Your task to perform on an android device: Show me recent news Image 0: 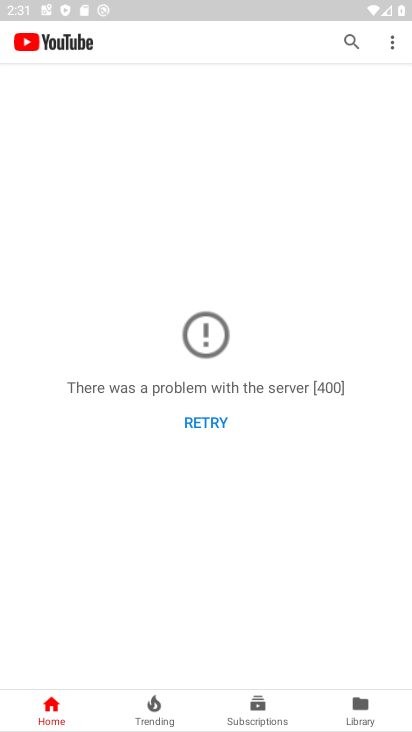
Step 0: drag from (227, 668) to (269, 379)
Your task to perform on an android device: Show me recent news Image 1: 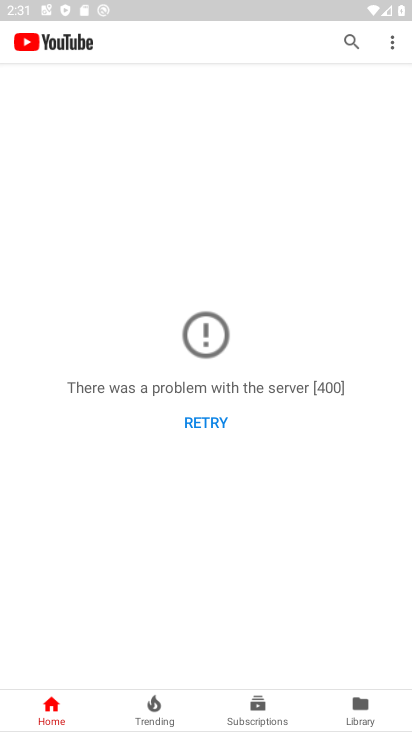
Step 1: press home button
Your task to perform on an android device: Show me recent news Image 2: 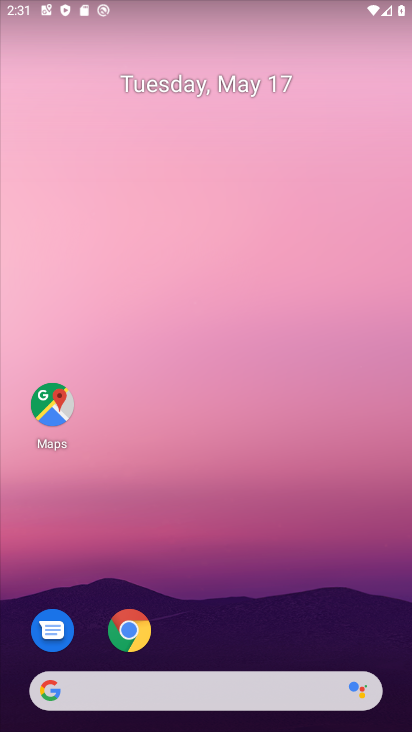
Step 2: drag from (156, 526) to (194, 268)
Your task to perform on an android device: Show me recent news Image 3: 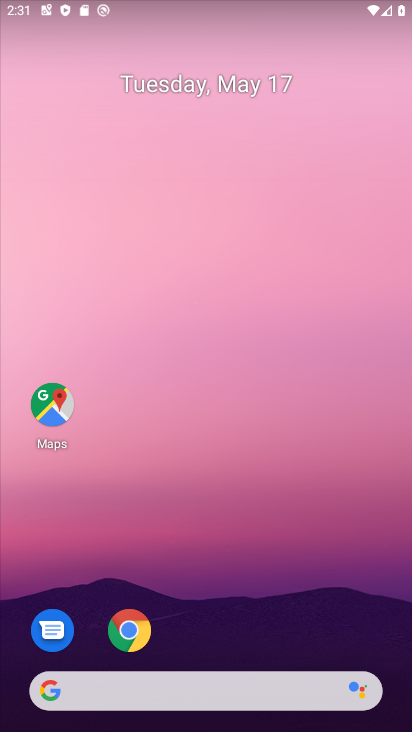
Step 3: drag from (230, 665) to (270, 180)
Your task to perform on an android device: Show me recent news Image 4: 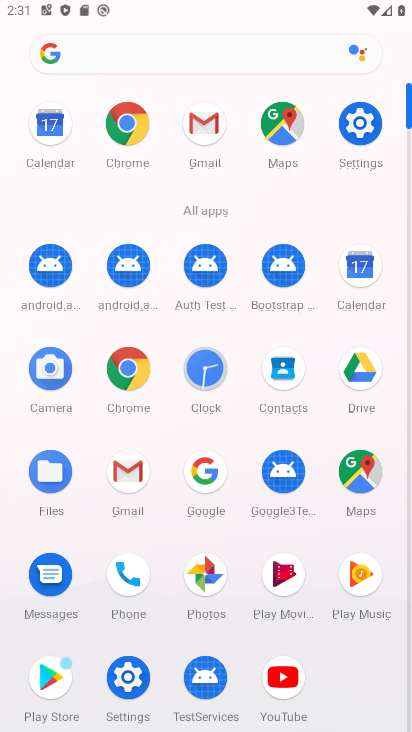
Step 4: click (205, 469)
Your task to perform on an android device: Show me recent news Image 5: 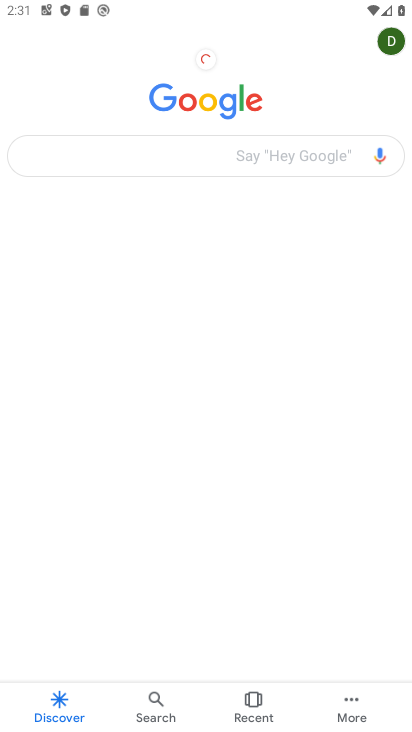
Step 5: click (203, 162)
Your task to perform on an android device: Show me recent news Image 6: 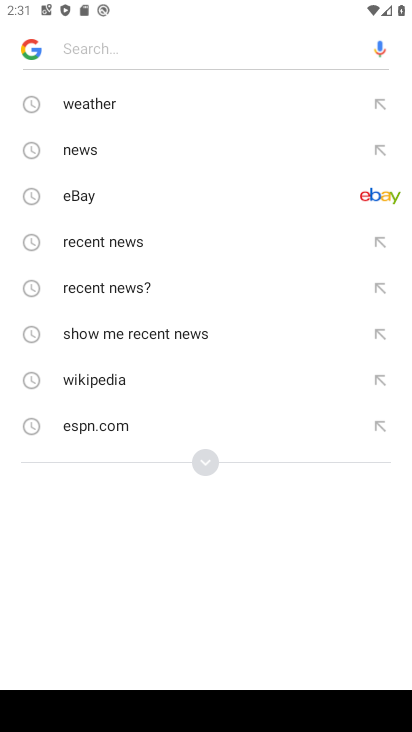
Step 6: click (133, 237)
Your task to perform on an android device: Show me recent news Image 7: 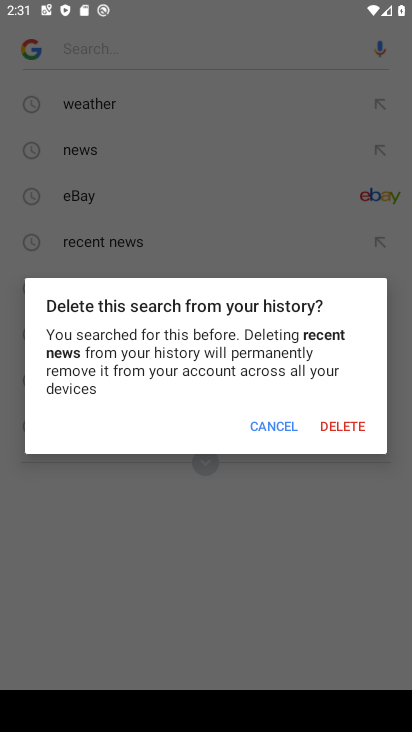
Step 7: click (267, 420)
Your task to perform on an android device: Show me recent news Image 8: 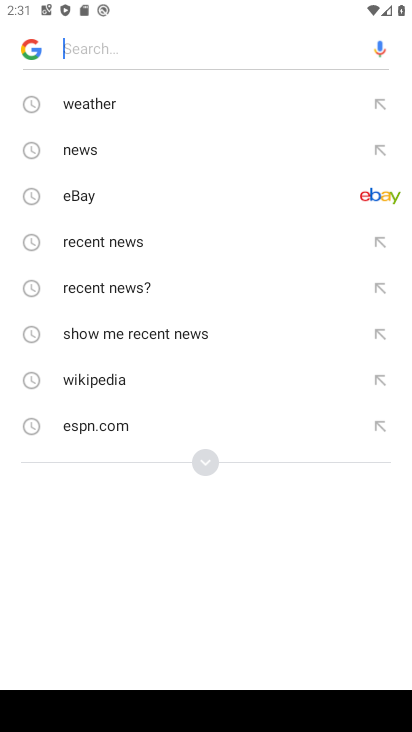
Step 8: click (97, 239)
Your task to perform on an android device: Show me recent news Image 9: 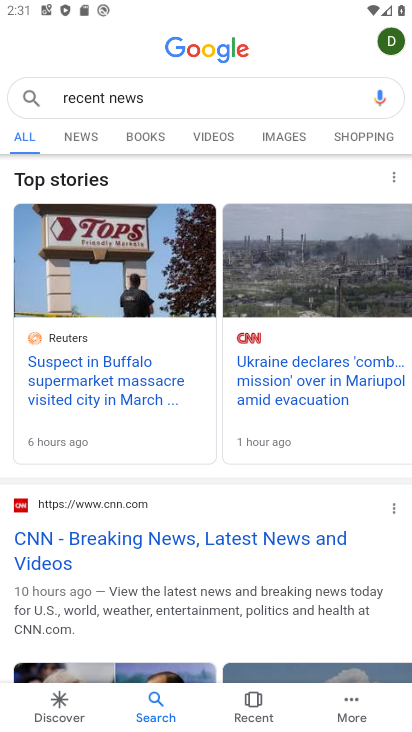
Step 9: drag from (191, 606) to (205, 174)
Your task to perform on an android device: Show me recent news Image 10: 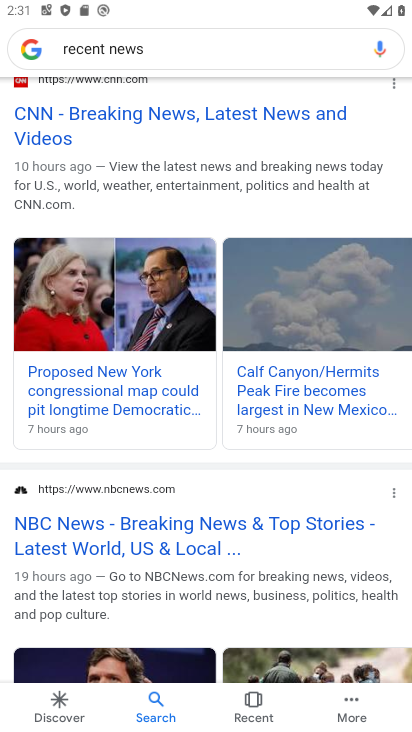
Step 10: click (300, 251)
Your task to perform on an android device: Show me recent news Image 11: 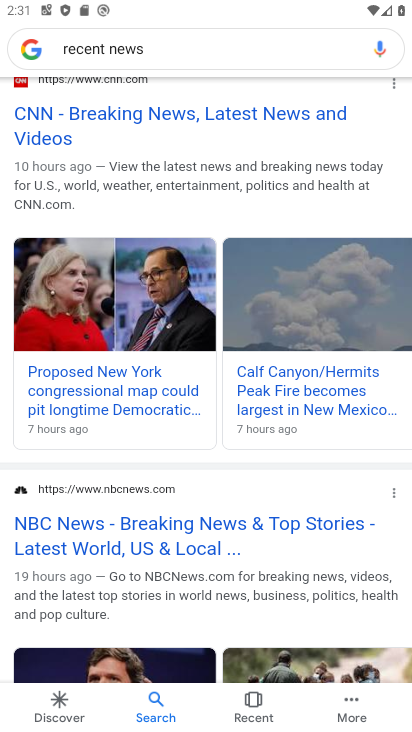
Step 11: task complete